Your task to perform on an android device: Open Google Maps Image 0: 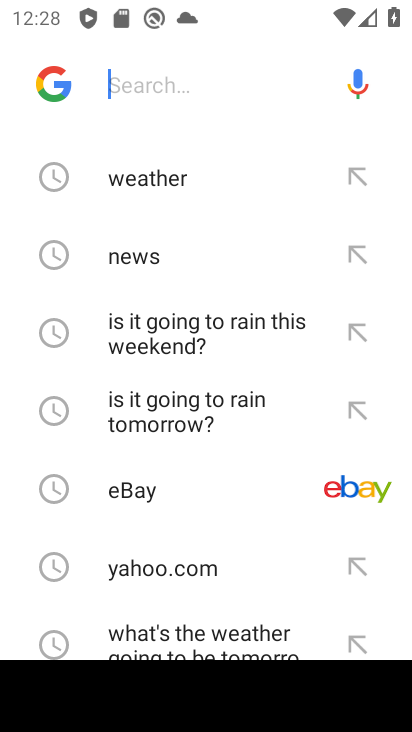
Step 0: press back button
Your task to perform on an android device: Open Google Maps Image 1: 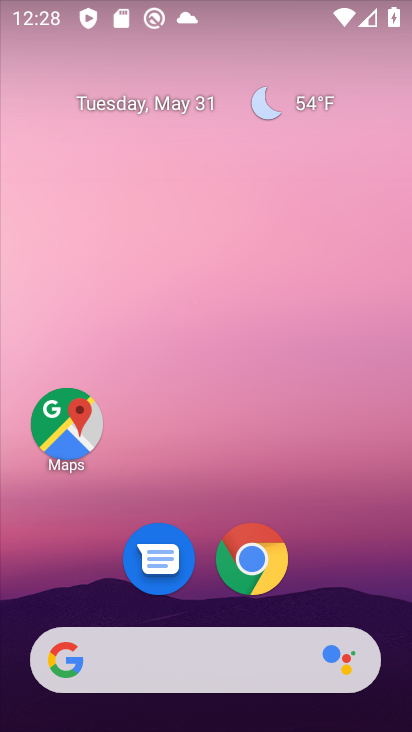
Step 1: drag from (66, 427) to (119, 427)
Your task to perform on an android device: Open Google Maps Image 2: 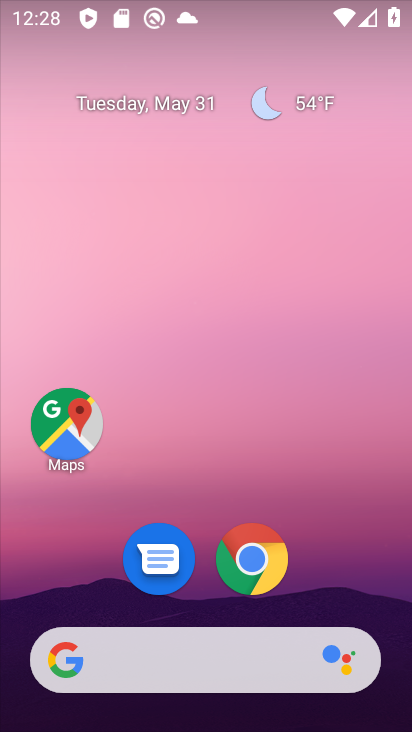
Step 2: click (48, 428)
Your task to perform on an android device: Open Google Maps Image 3: 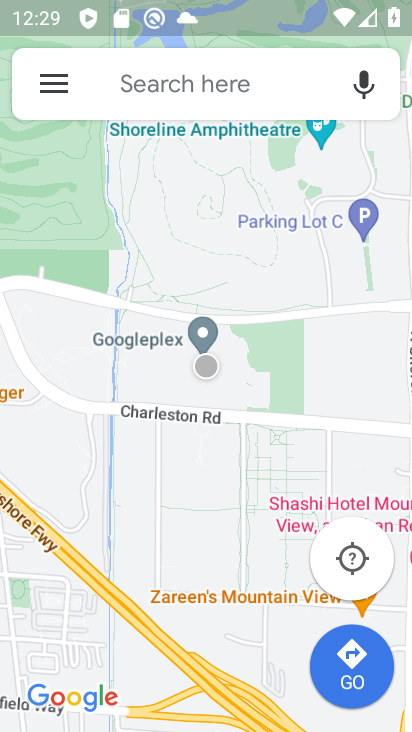
Step 3: task complete